Your task to perform on an android device: create a new album in the google photos Image 0: 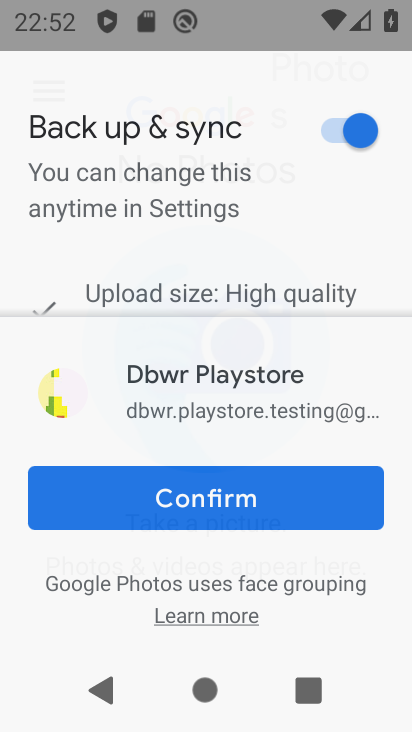
Step 0: press home button
Your task to perform on an android device: create a new album in the google photos Image 1: 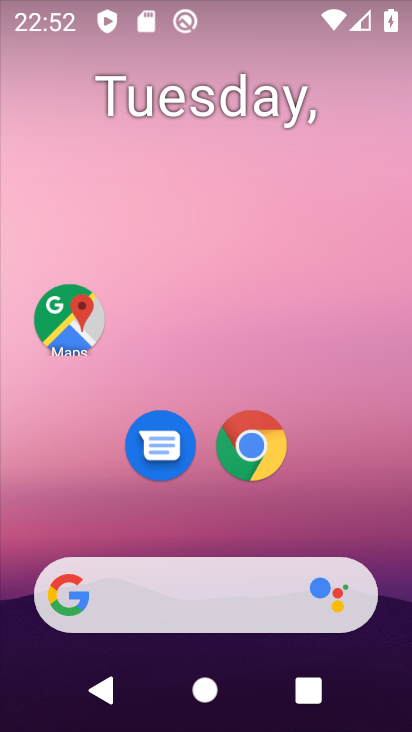
Step 1: drag from (222, 497) to (356, 46)
Your task to perform on an android device: create a new album in the google photos Image 2: 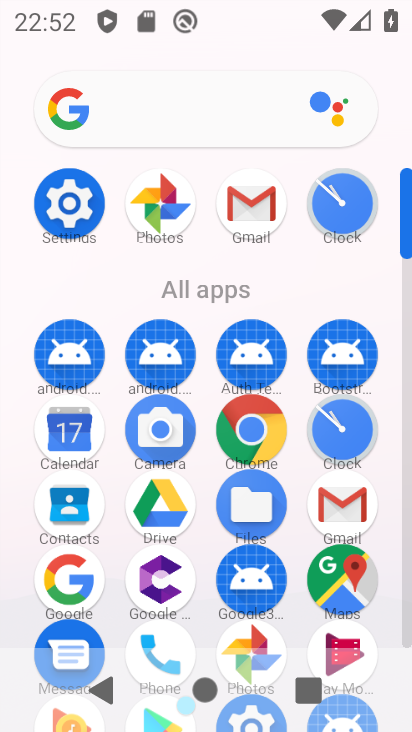
Step 2: click (155, 195)
Your task to perform on an android device: create a new album in the google photos Image 3: 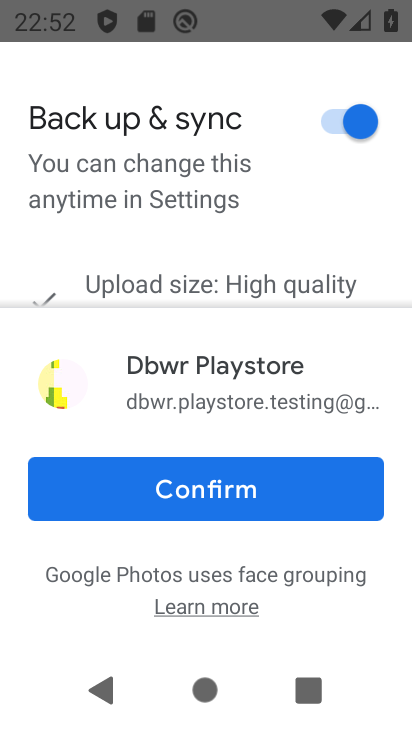
Step 3: click (167, 502)
Your task to perform on an android device: create a new album in the google photos Image 4: 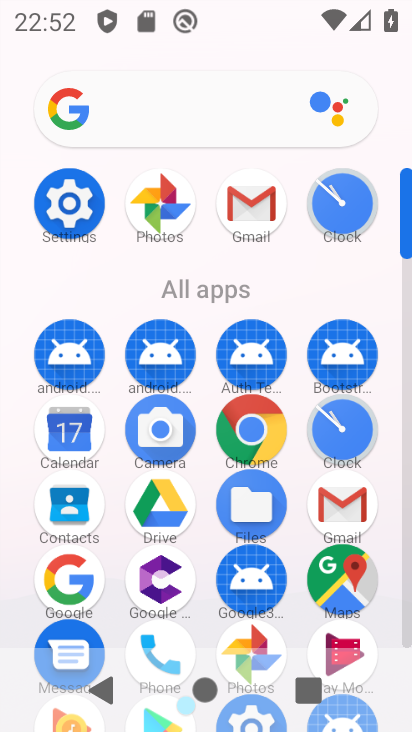
Step 4: click (158, 203)
Your task to perform on an android device: create a new album in the google photos Image 5: 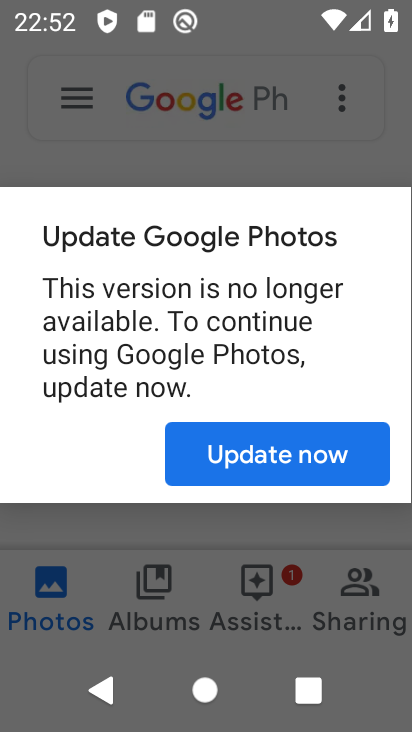
Step 5: click (226, 451)
Your task to perform on an android device: create a new album in the google photos Image 6: 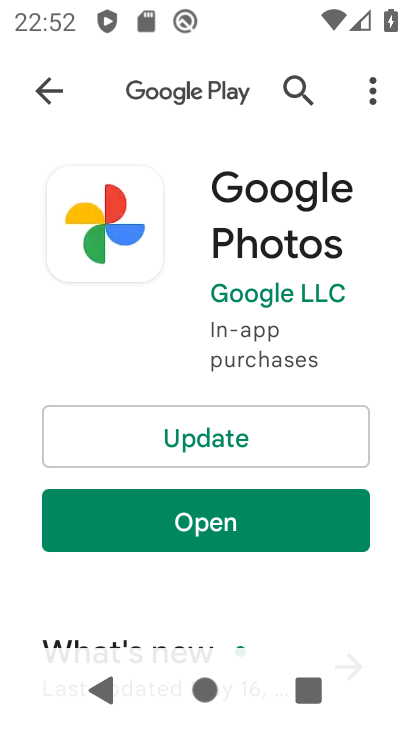
Step 6: click (198, 427)
Your task to perform on an android device: create a new album in the google photos Image 7: 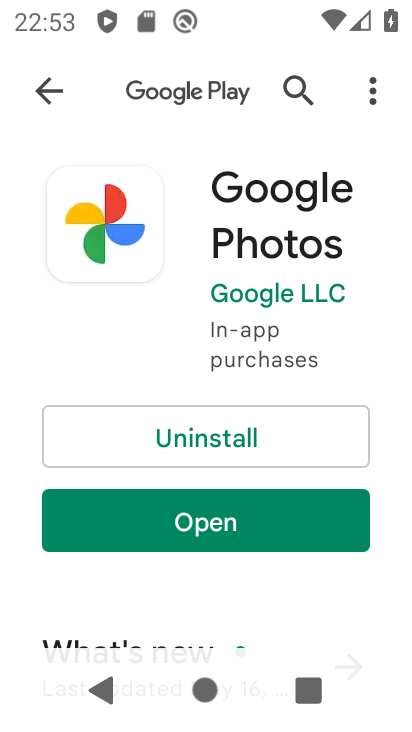
Step 7: click (182, 527)
Your task to perform on an android device: create a new album in the google photos Image 8: 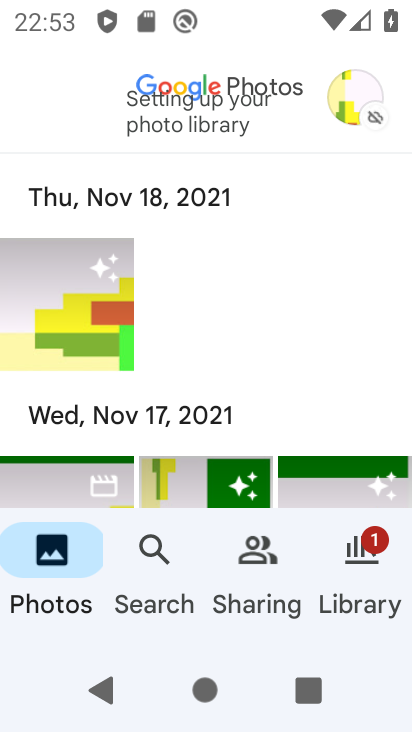
Step 8: click (373, 555)
Your task to perform on an android device: create a new album in the google photos Image 9: 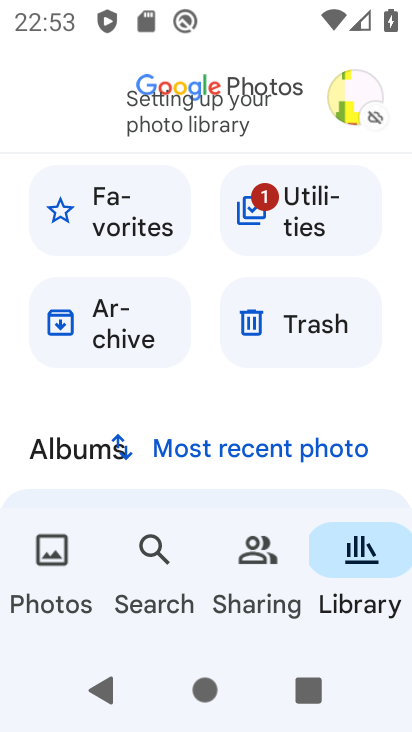
Step 9: drag from (153, 494) to (236, 82)
Your task to perform on an android device: create a new album in the google photos Image 10: 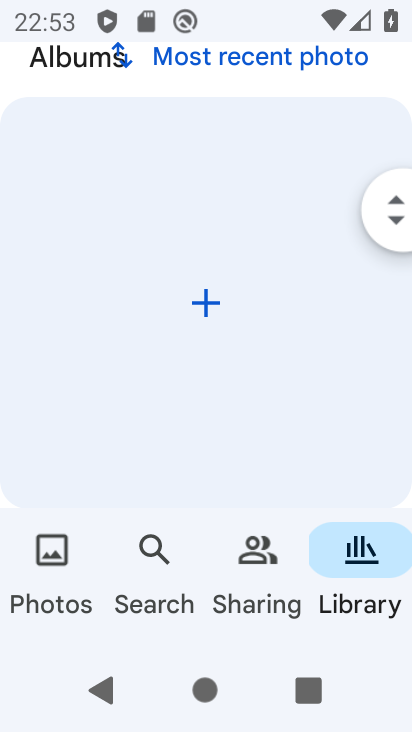
Step 10: click (206, 295)
Your task to perform on an android device: create a new album in the google photos Image 11: 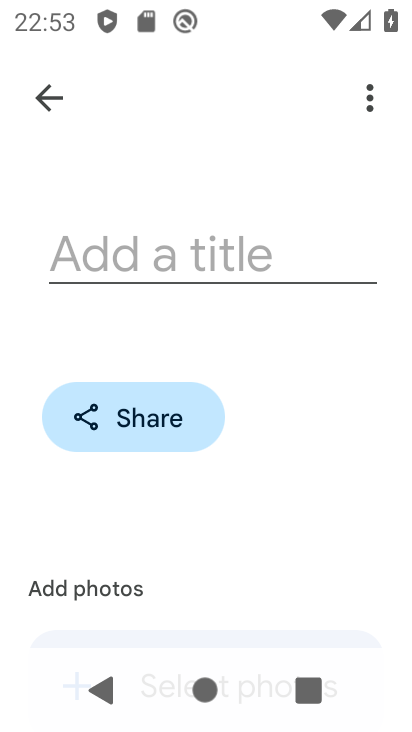
Step 11: click (223, 240)
Your task to perform on an android device: create a new album in the google photos Image 12: 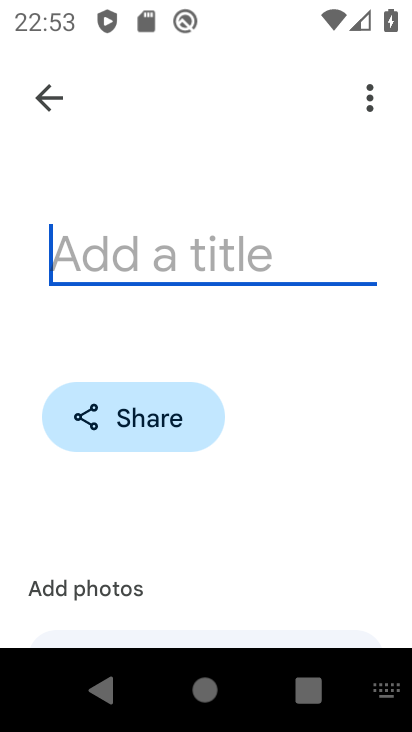
Step 12: type "njiokmlp"
Your task to perform on an android device: create a new album in the google photos Image 13: 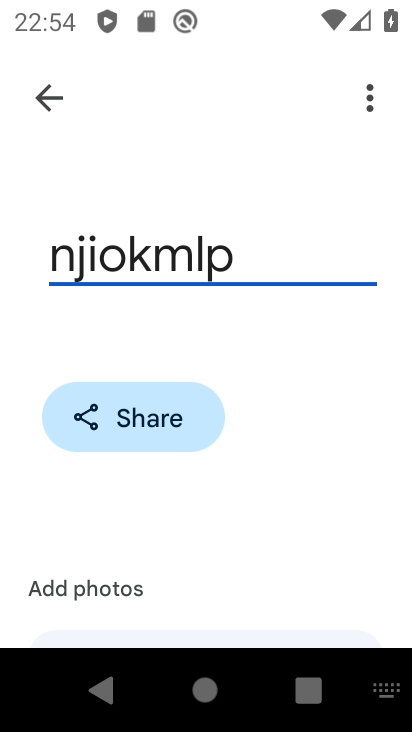
Step 13: drag from (255, 512) to (261, 157)
Your task to perform on an android device: create a new album in the google photos Image 14: 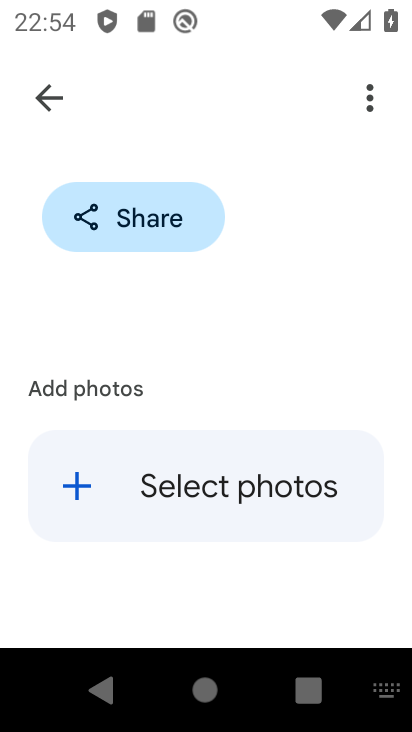
Step 14: click (184, 486)
Your task to perform on an android device: create a new album in the google photos Image 15: 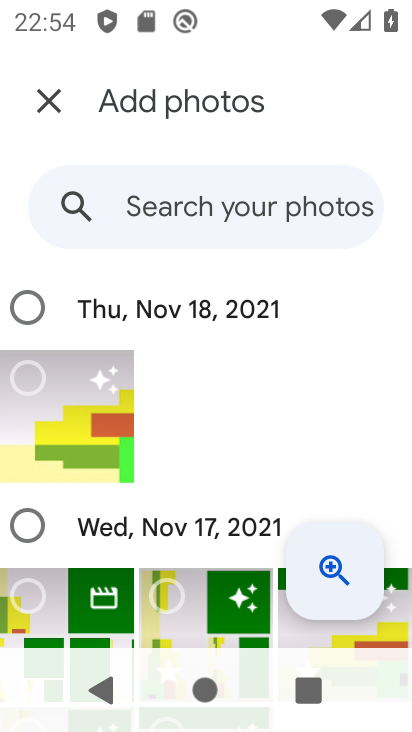
Step 15: click (95, 435)
Your task to perform on an android device: create a new album in the google photos Image 16: 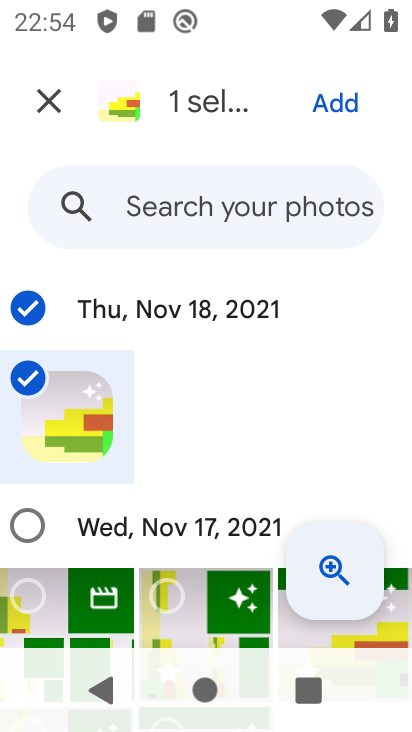
Step 16: click (326, 97)
Your task to perform on an android device: create a new album in the google photos Image 17: 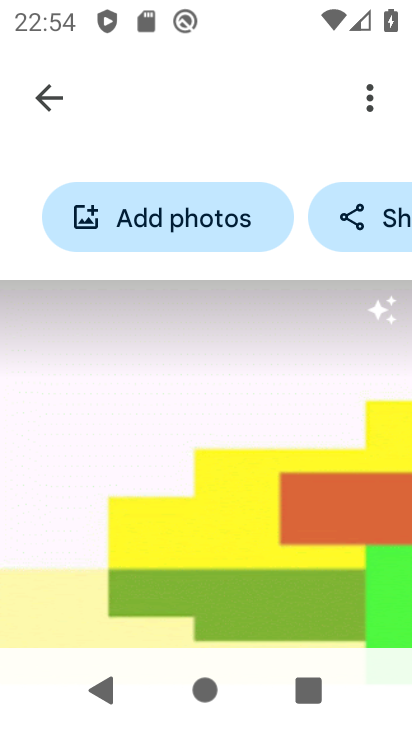
Step 17: task complete